Your task to perform on an android device: toggle pop-ups in chrome Image 0: 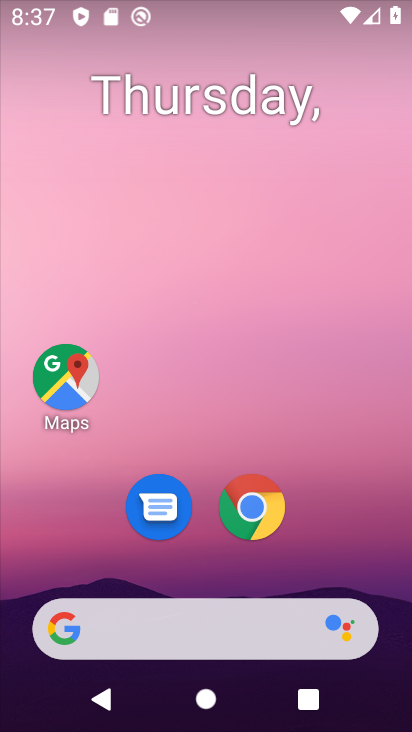
Step 0: click (259, 496)
Your task to perform on an android device: toggle pop-ups in chrome Image 1: 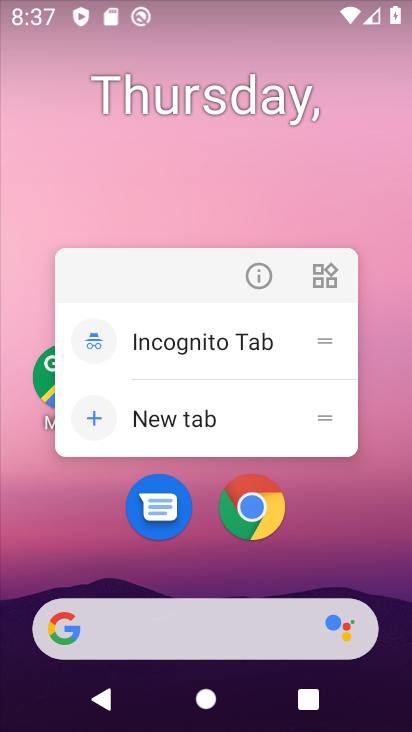
Step 1: click (259, 496)
Your task to perform on an android device: toggle pop-ups in chrome Image 2: 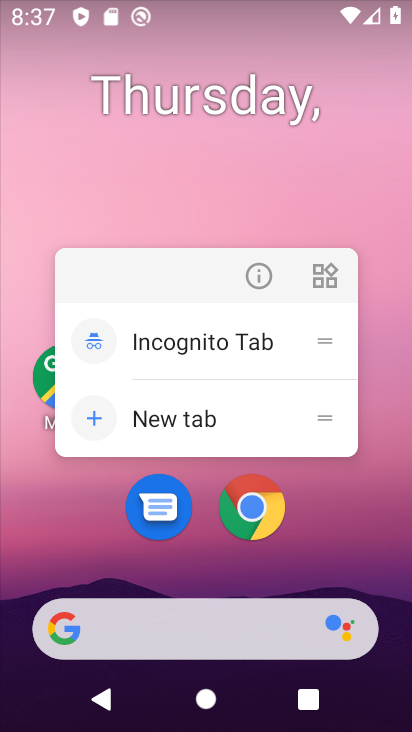
Step 2: click (261, 495)
Your task to perform on an android device: toggle pop-ups in chrome Image 3: 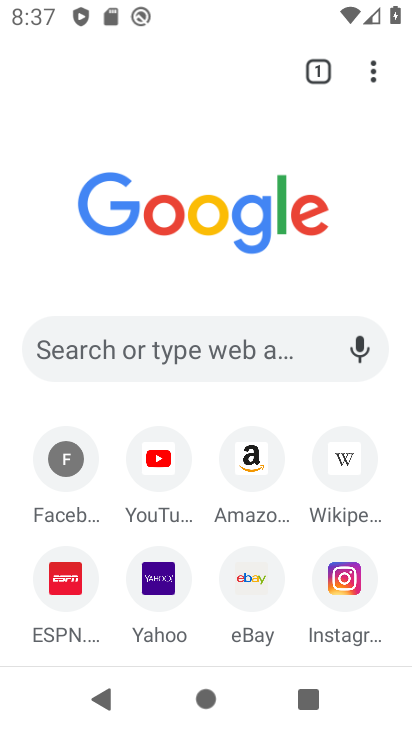
Step 3: click (374, 82)
Your task to perform on an android device: toggle pop-ups in chrome Image 4: 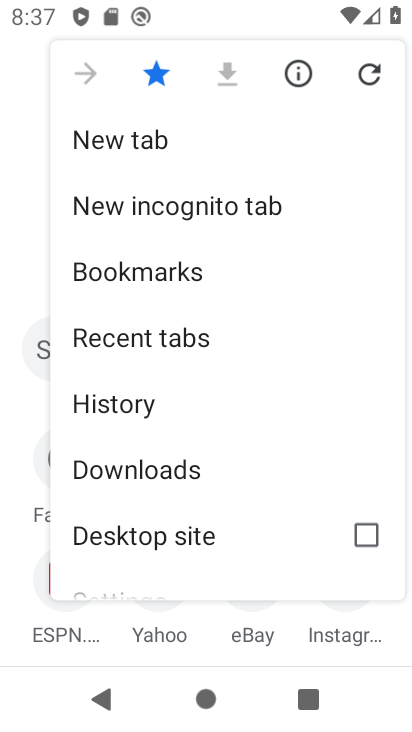
Step 4: drag from (145, 532) to (181, 195)
Your task to perform on an android device: toggle pop-ups in chrome Image 5: 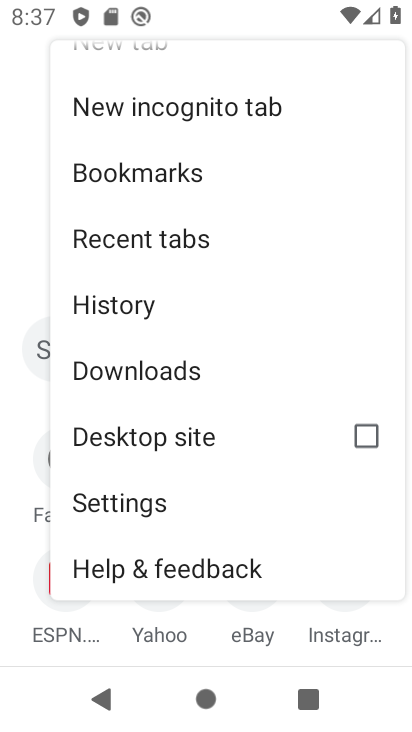
Step 5: click (117, 503)
Your task to perform on an android device: toggle pop-ups in chrome Image 6: 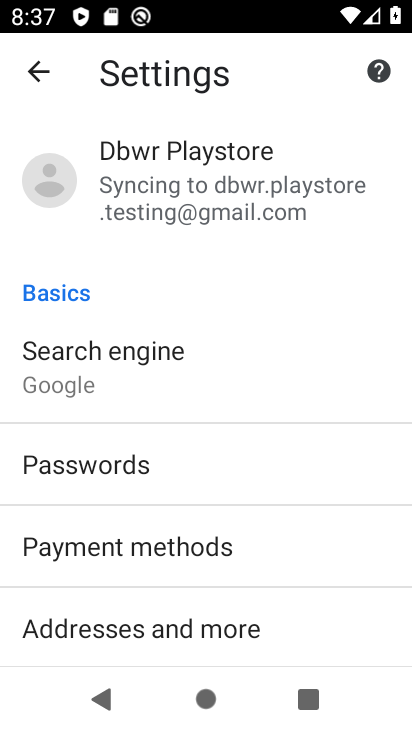
Step 6: drag from (207, 580) to (211, 249)
Your task to perform on an android device: toggle pop-ups in chrome Image 7: 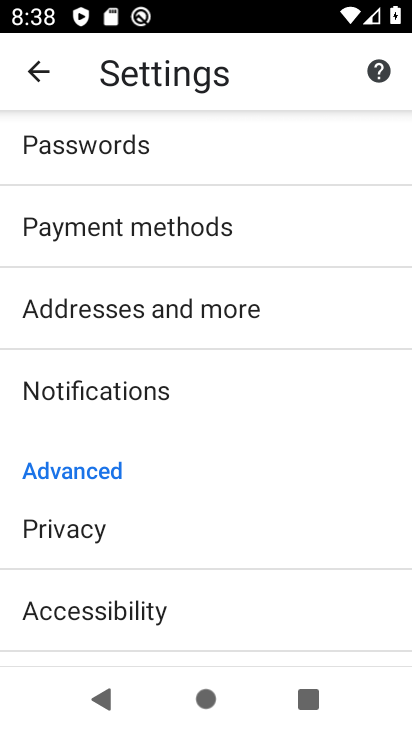
Step 7: drag from (120, 592) to (165, 173)
Your task to perform on an android device: toggle pop-ups in chrome Image 8: 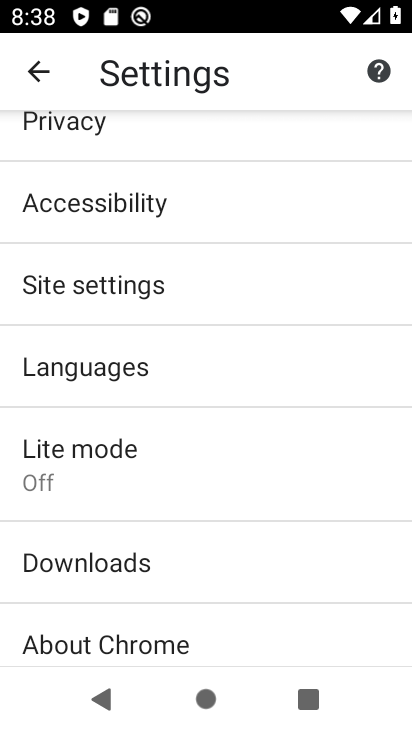
Step 8: click (120, 294)
Your task to perform on an android device: toggle pop-ups in chrome Image 9: 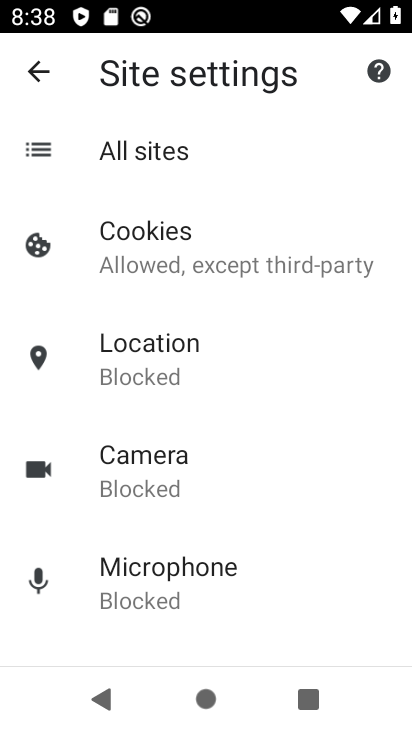
Step 9: drag from (158, 527) to (220, 252)
Your task to perform on an android device: toggle pop-ups in chrome Image 10: 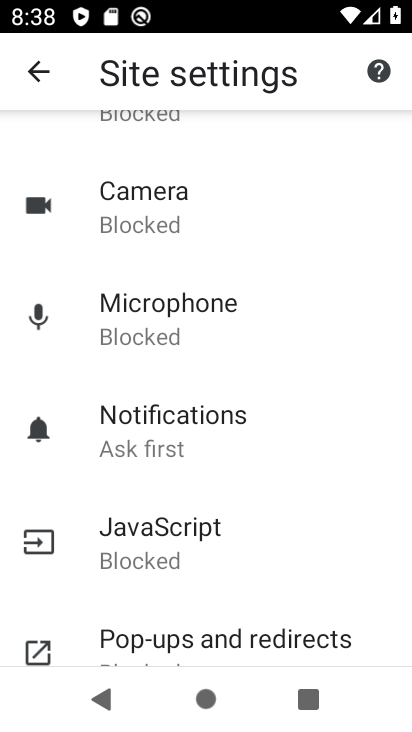
Step 10: click (165, 626)
Your task to perform on an android device: toggle pop-ups in chrome Image 11: 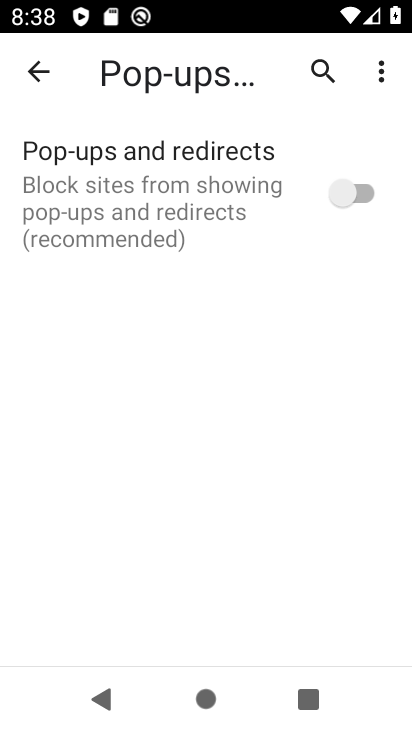
Step 11: click (359, 184)
Your task to perform on an android device: toggle pop-ups in chrome Image 12: 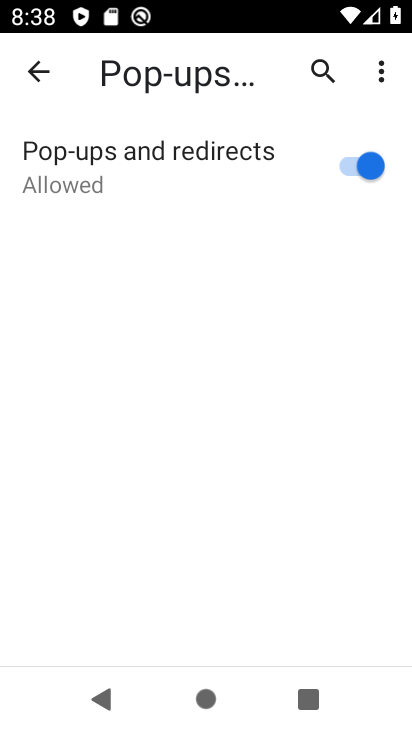
Step 12: task complete